Your task to perform on an android device: Go to network settings Image 0: 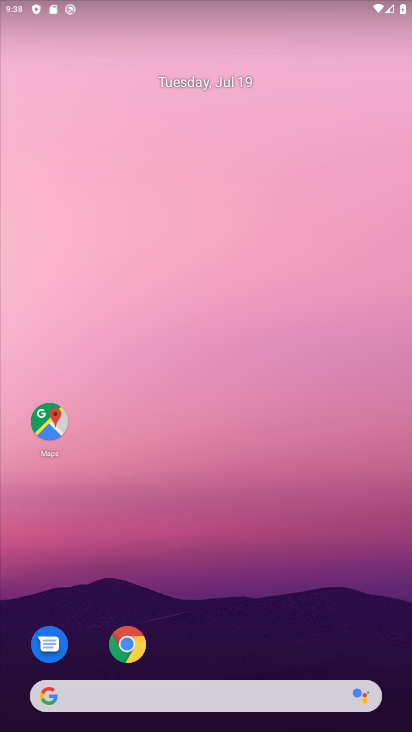
Step 0: drag from (241, 604) to (146, 302)
Your task to perform on an android device: Go to network settings Image 1: 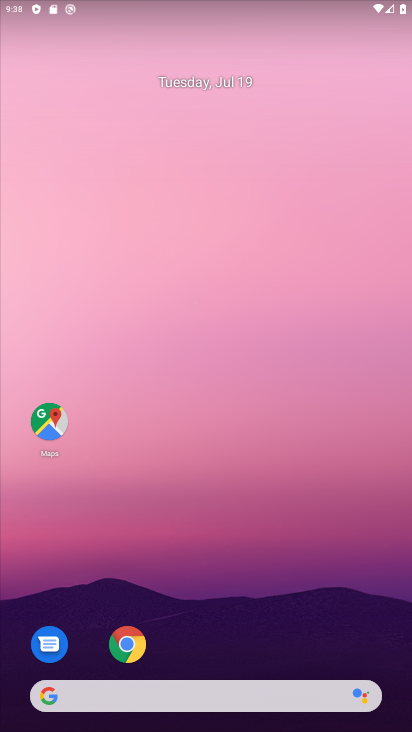
Step 1: drag from (309, 665) to (110, 345)
Your task to perform on an android device: Go to network settings Image 2: 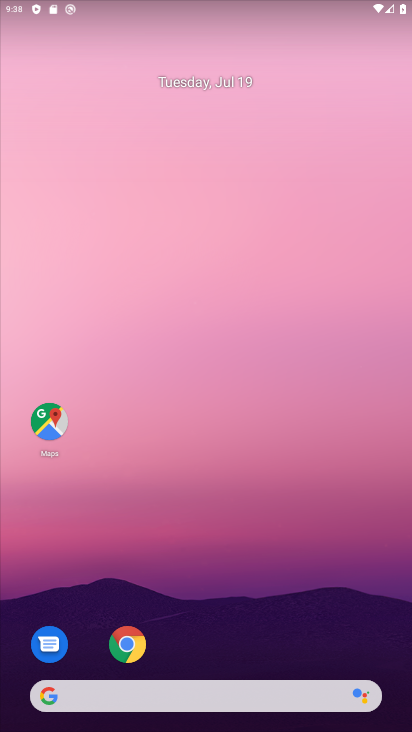
Step 2: drag from (257, 447) to (0, 201)
Your task to perform on an android device: Go to network settings Image 3: 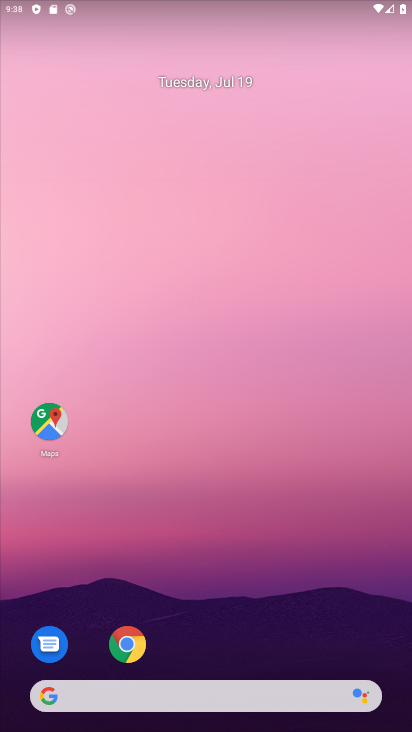
Step 3: drag from (223, 621) to (220, 150)
Your task to perform on an android device: Go to network settings Image 4: 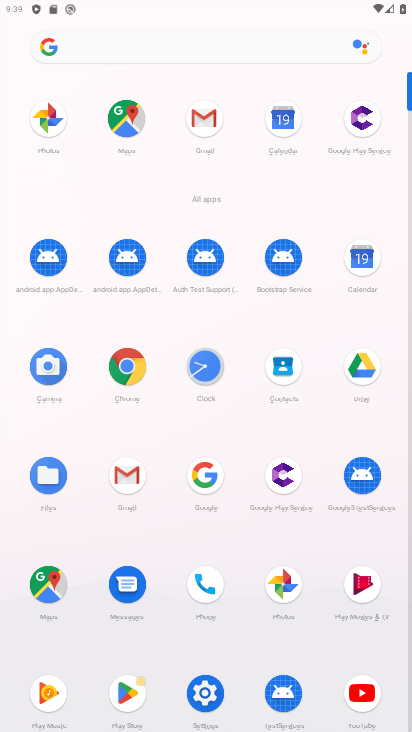
Step 4: click (199, 694)
Your task to perform on an android device: Go to network settings Image 5: 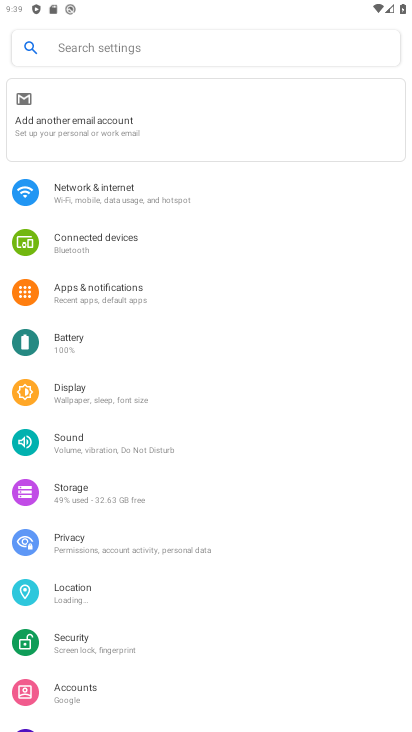
Step 5: click (116, 182)
Your task to perform on an android device: Go to network settings Image 6: 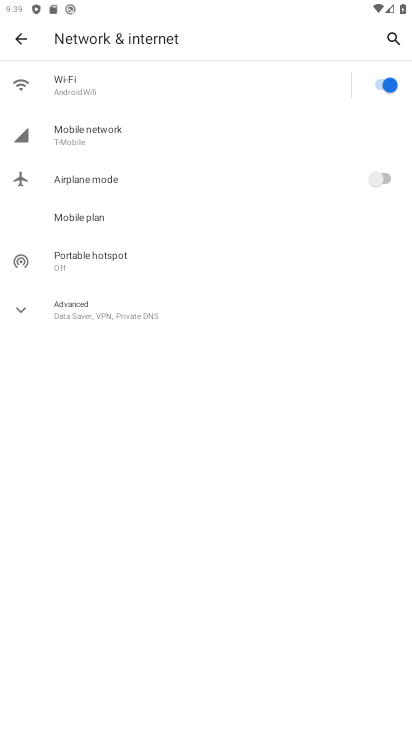
Step 6: task complete